Your task to perform on an android device: What's the weather? Image 0: 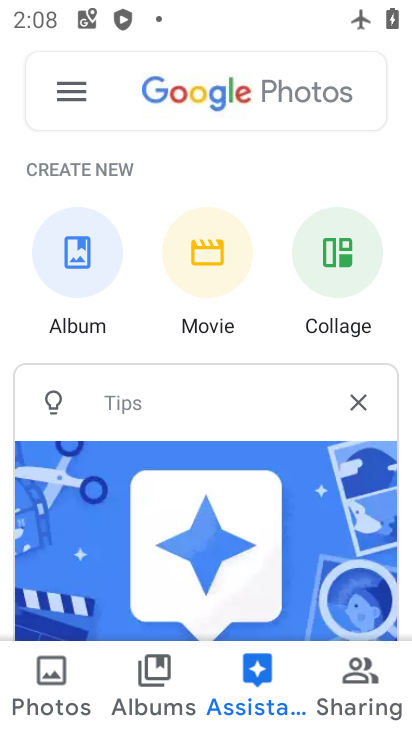
Step 0: press home button
Your task to perform on an android device: What's the weather? Image 1: 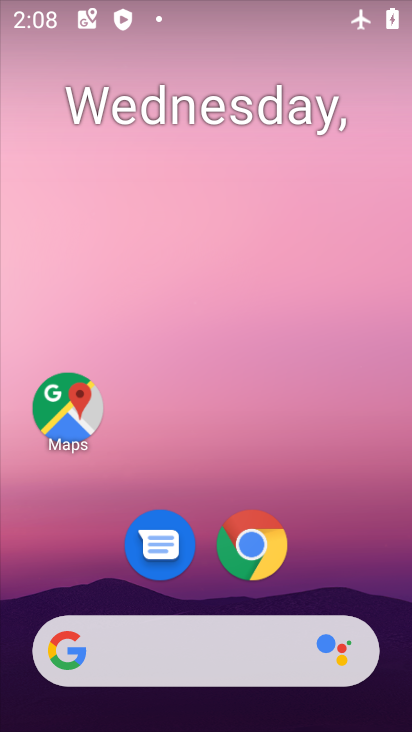
Step 1: click (245, 547)
Your task to perform on an android device: What's the weather? Image 2: 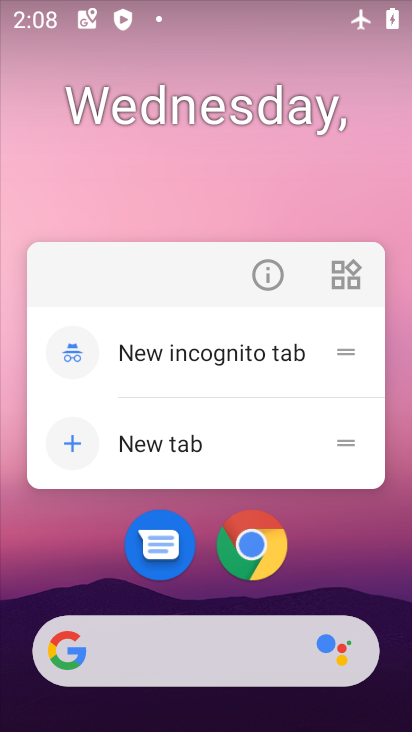
Step 2: click (260, 537)
Your task to perform on an android device: What's the weather? Image 3: 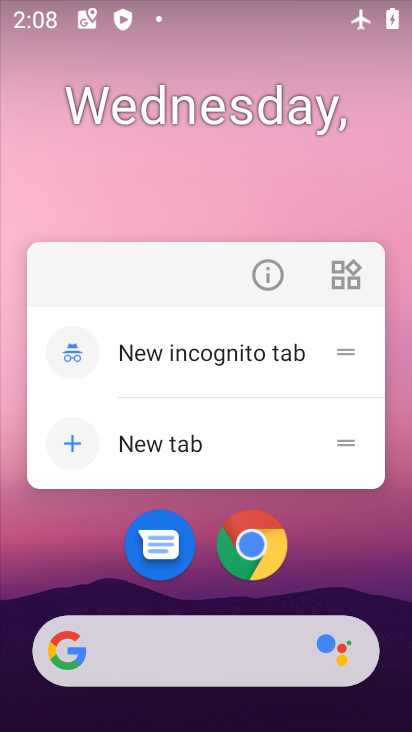
Step 3: click (258, 546)
Your task to perform on an android device: What's the weather? Image 4: 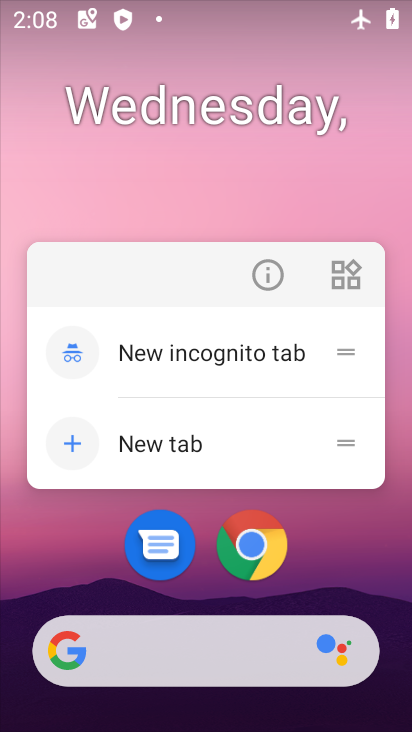
Step 4: click (317, 557)
Your task to perform on an android device: What's the weather? Image 5: 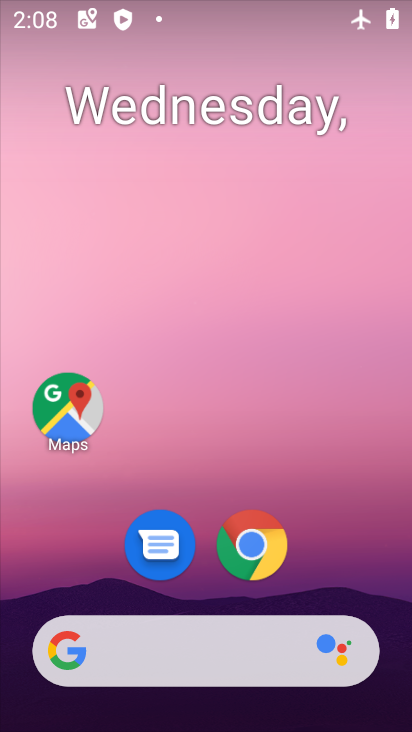
Step 5: drag from (315, 557) to (327, 123)
Your task to perform on an android device: What's the weather? Image 6: 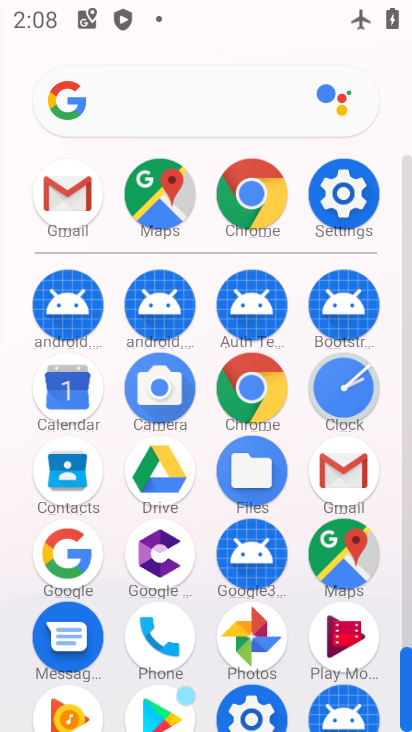
Step 6: click (250, 389)
Your task to perform on an android device: What's the weather? Image 7: 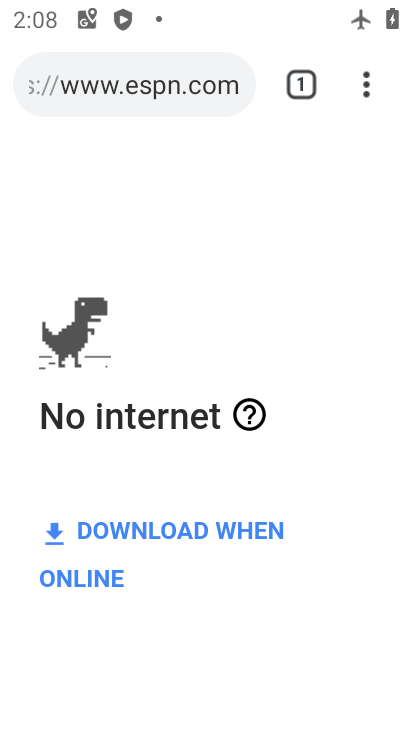
Step 7: click (163, 80)
Your task to perform on an android device: What's the weather? Image 8: 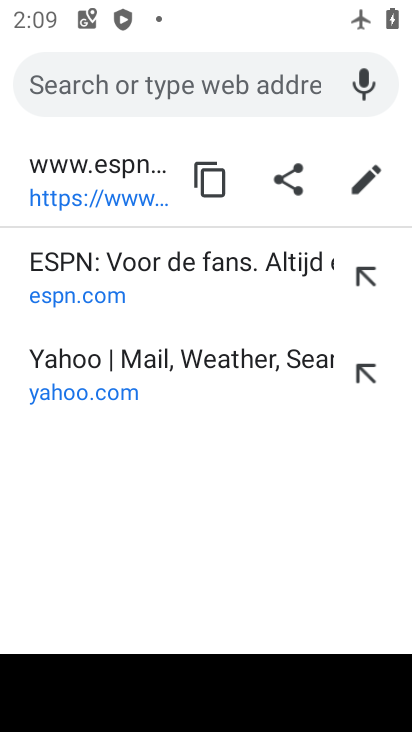
Step 8: type "weather"
Your task to perform on an android device: What's the weather? Image 9: 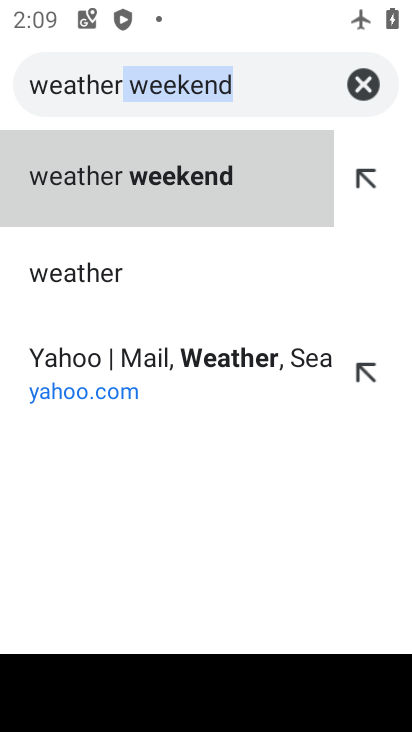
Step 9: click (45, 270)
Your task to perform on an android device: What's the weather? Image 10: 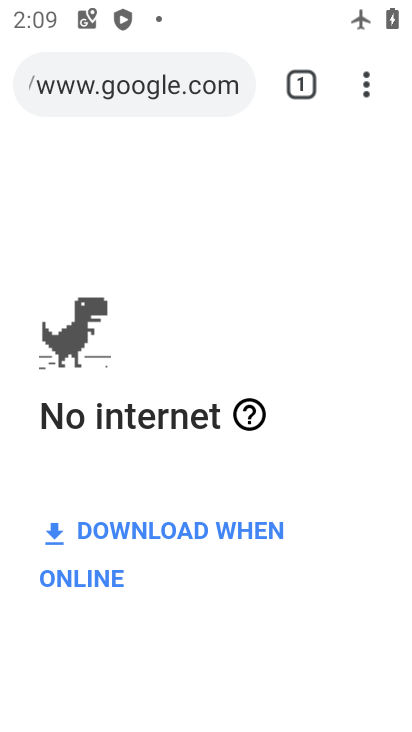
Step 10: task complete